Your task to perform on an android device: What's on my calendar tomorrow? Image 0: 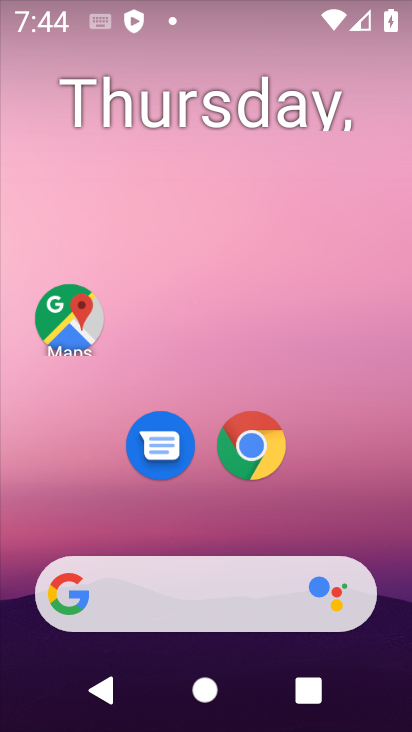
Step 0: drag from (363, 480) to (330, 87)
Your task to perform on an android device: What's on my calendar tomorrow? Image 1: 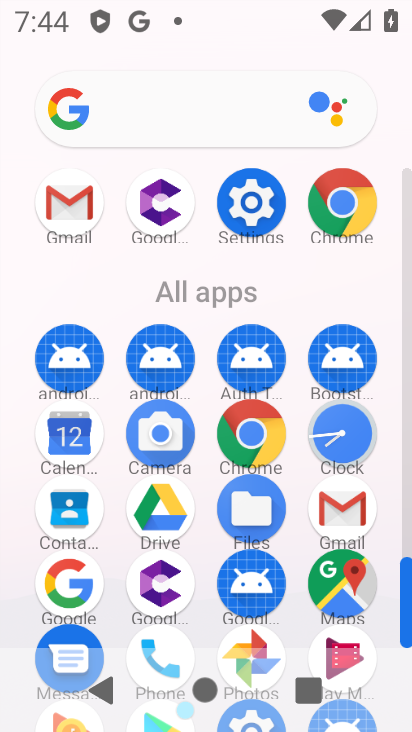
Step 1: click (67, 448)
Your task to perform on an android device: What's on my calendar tomorrow? Image 2: 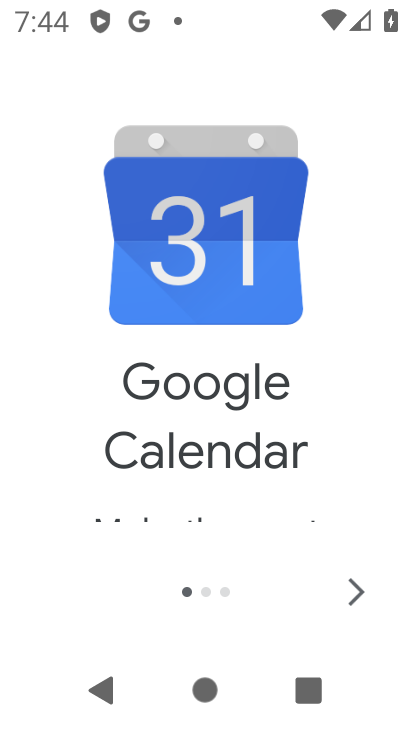
Step 2: click (348, 579)
Your task to perform on an android device: What's on my calendar tomorrow? Image 3: 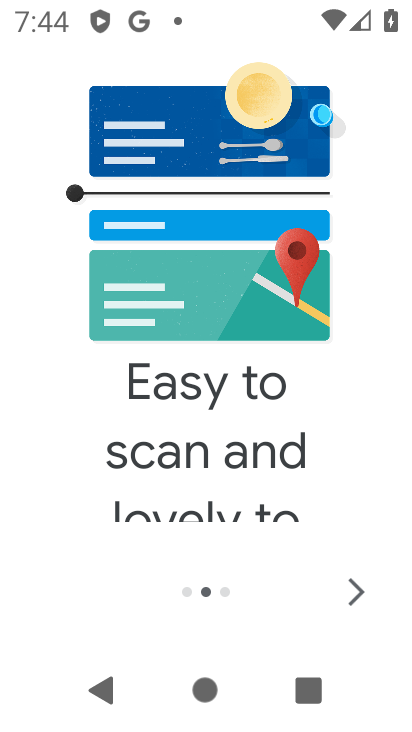
Step 3: click (348, 577)
Your task to perform on an android device: What's on my calendar tomorrow? Image 4: 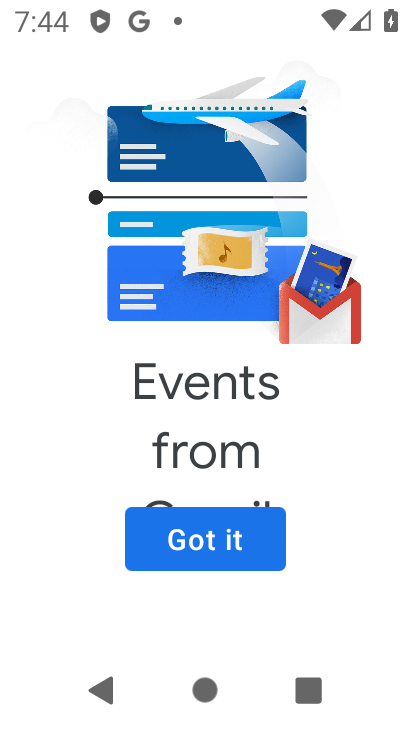
Step 4: click (185, 526)
Your task to perform on an android device: What's on my calendar tomorrow? Image 5: 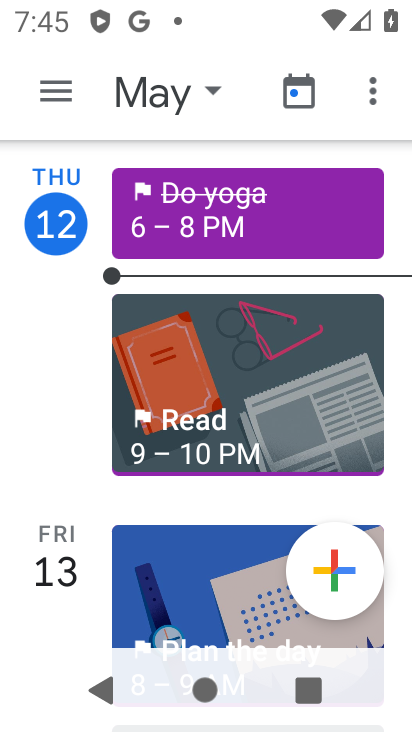
Step 5: drag from (77, 599) to (96, 309)
Your task to perform on an android device: What's on my calendar tomorrow? Image 6: 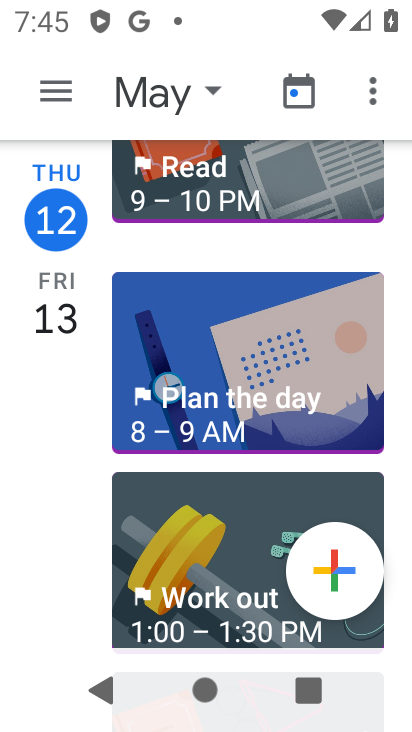
Step 6: drag from (95, 310) to (51, 636)
Your task to perform on an android device: What's on my calendar tomorrow? Image 7: 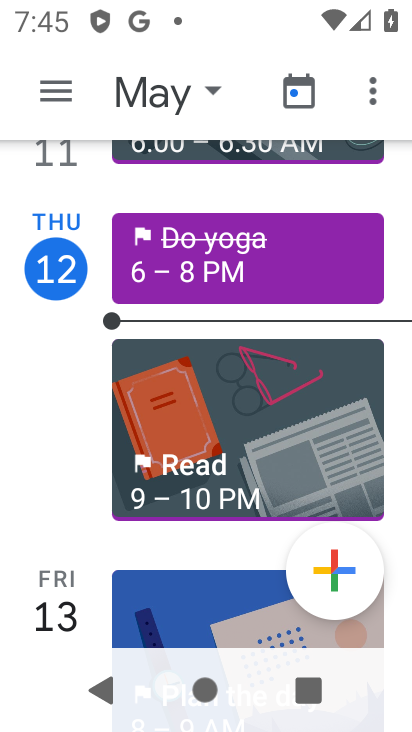
Step 7: click (166, 81)
Your task to perform on an android device: What's on my calendar tomorrow? Image 8: 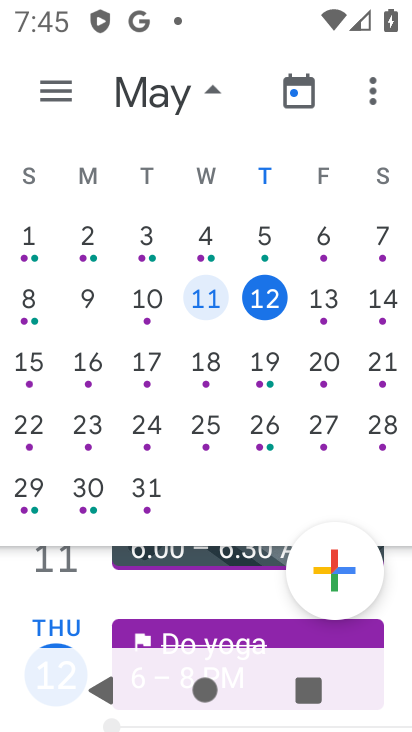
Step 8: click (267, 306)
Your task to perform on an android device: What's on my calendar tomorrow? Image 9: 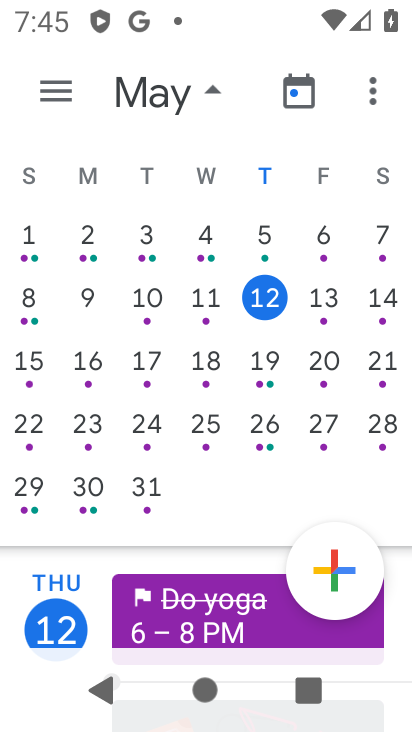
Step 9: task complete